Your task to perform on an android device: Open the phone app and click the voicemail tab. Image 0: 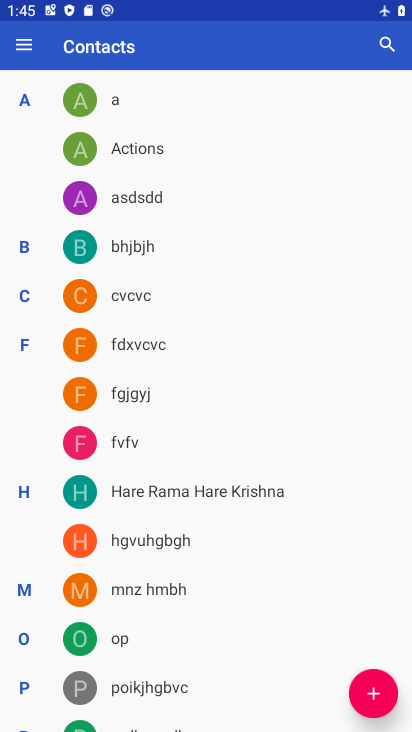
Step 0: press home button
Your task to perform on an android device: Open the phone app and click the voicemail tab. Image 1: 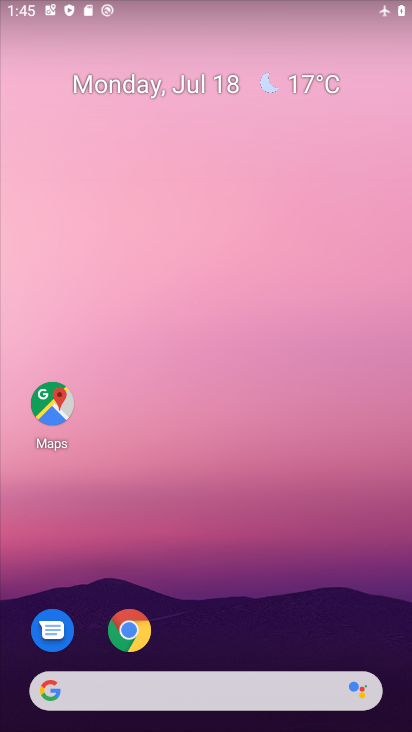
Step 1: drag from (247, 531) to (204, 31)
Your task to perform on an android device: Open the phone app and click the voicemail tab. Image 2: 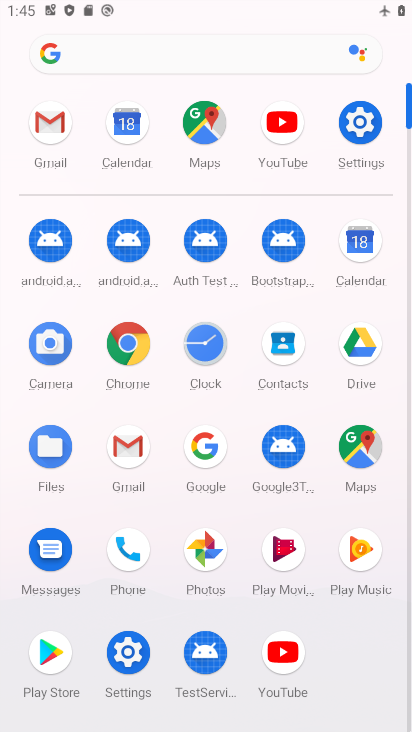
Step 2: click (132, 550)
Your task to perform on an android device: Open the phone app and click the voicemail tab. Image 3: 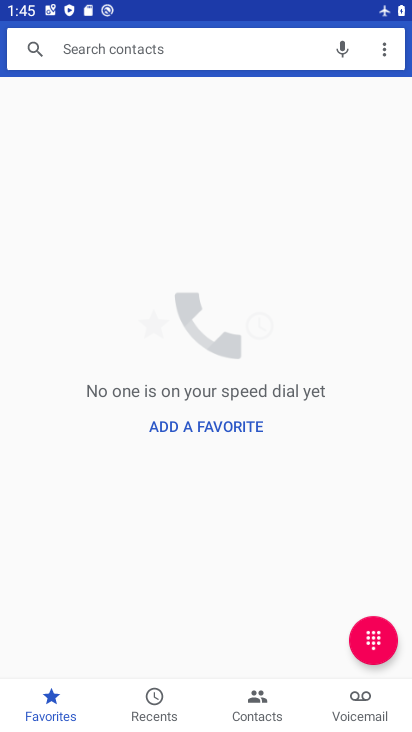
Step 3: click (359, 708)
Your task to perform on an android device: Open the phone app and click the voicemail tab. Image 4: 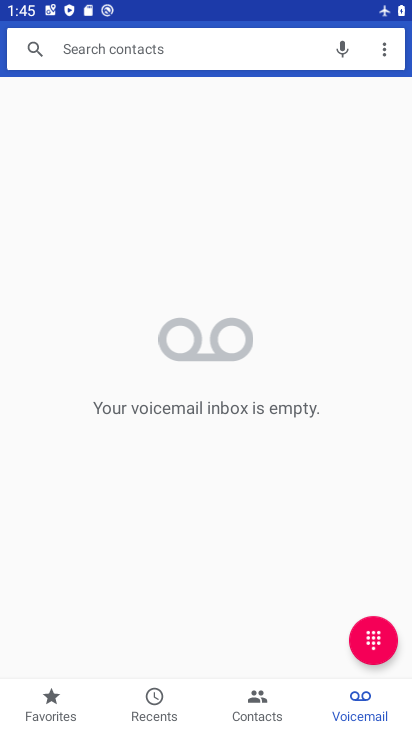
Step 4: task complete